Your task to perform on an android device: turn on wifi Image 0: 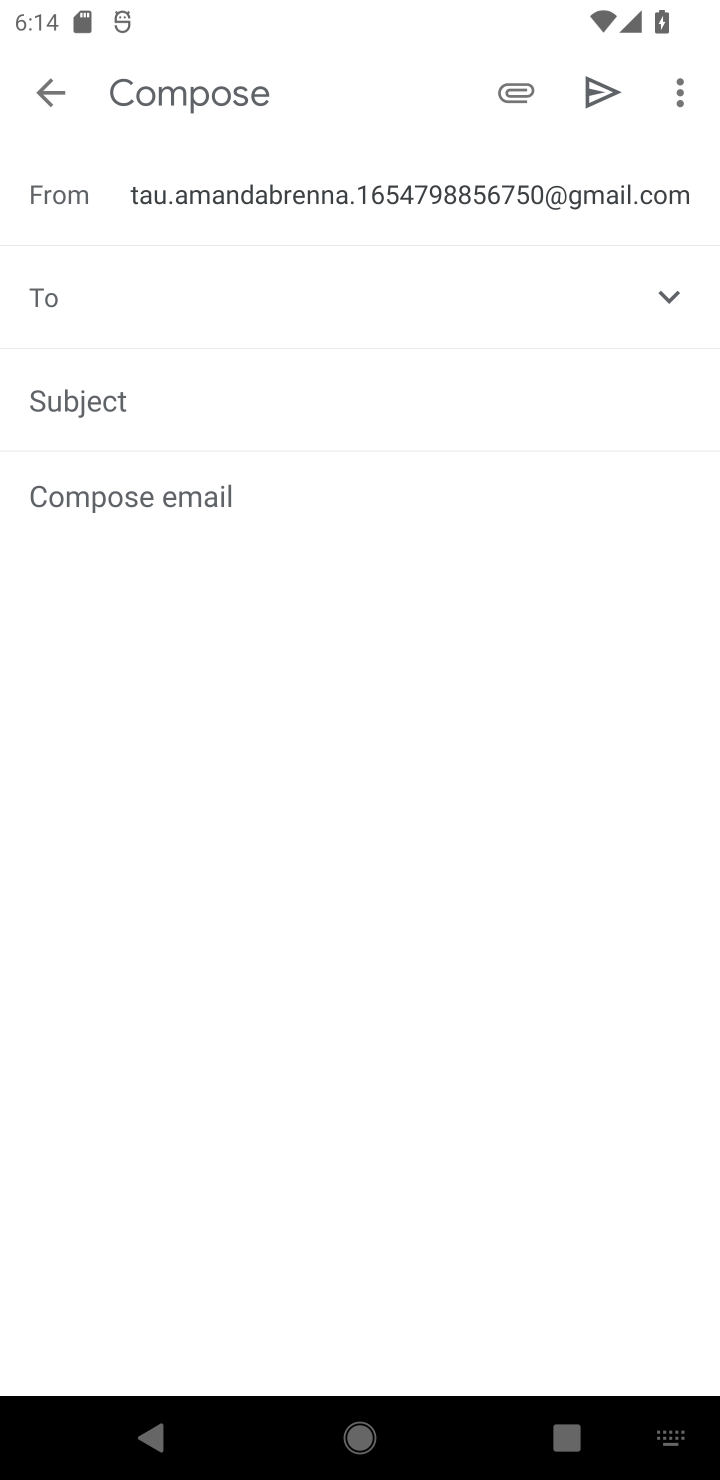
Step 0: press home button
Your task to perform on an android device: turn on wifi Image 1: 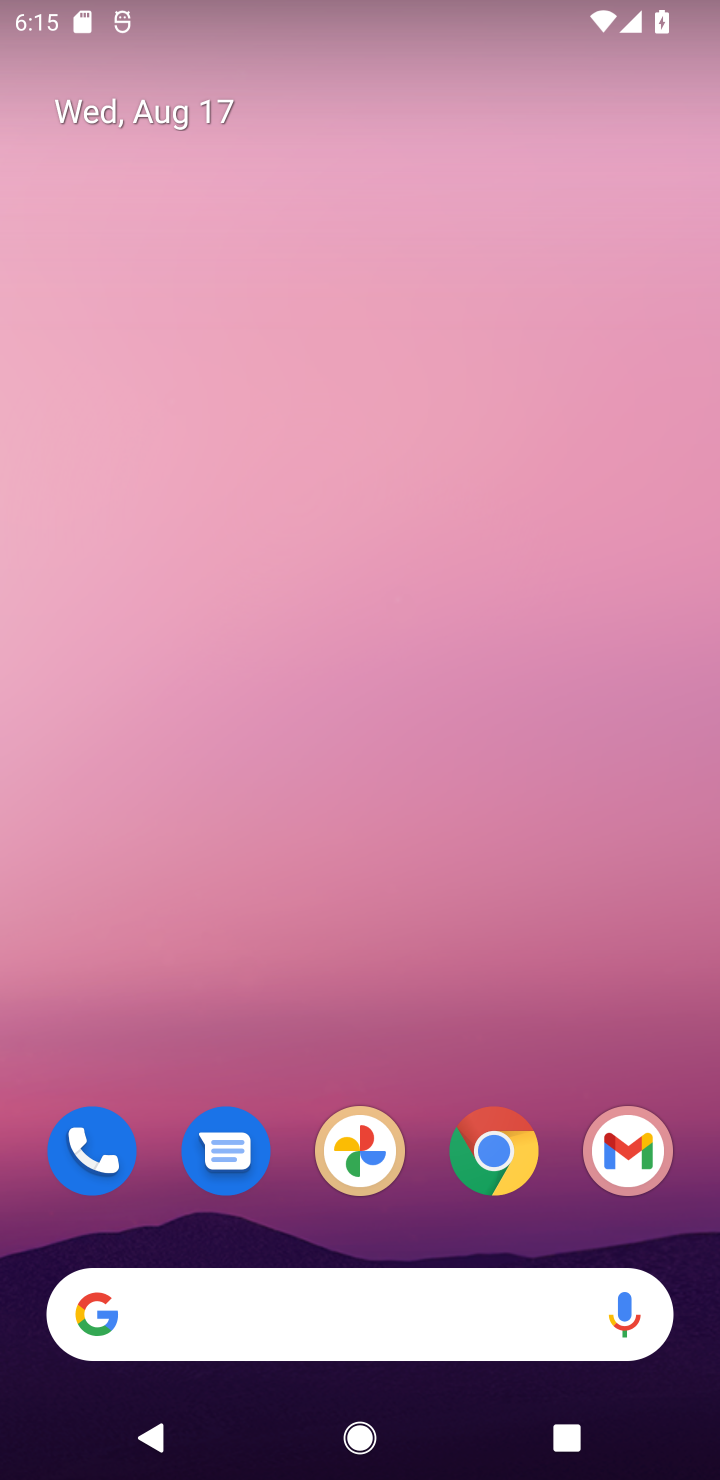
Step 1: drag from (433, 1247) to (488, 282)
Your task to perform on an android device: turn on wifi Image 2: 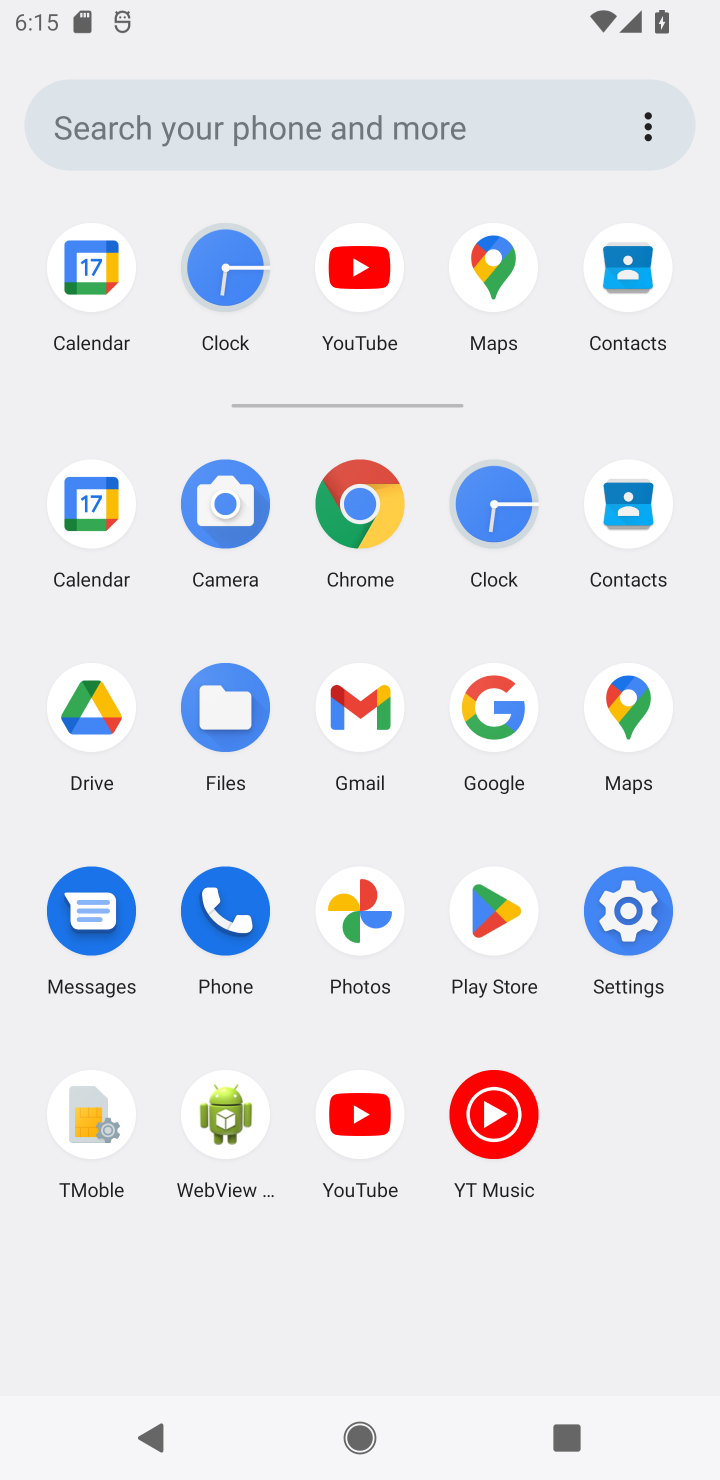
Step 2: click (609, 970)
Your task to perform on an android device: turn on wifi Image 3: 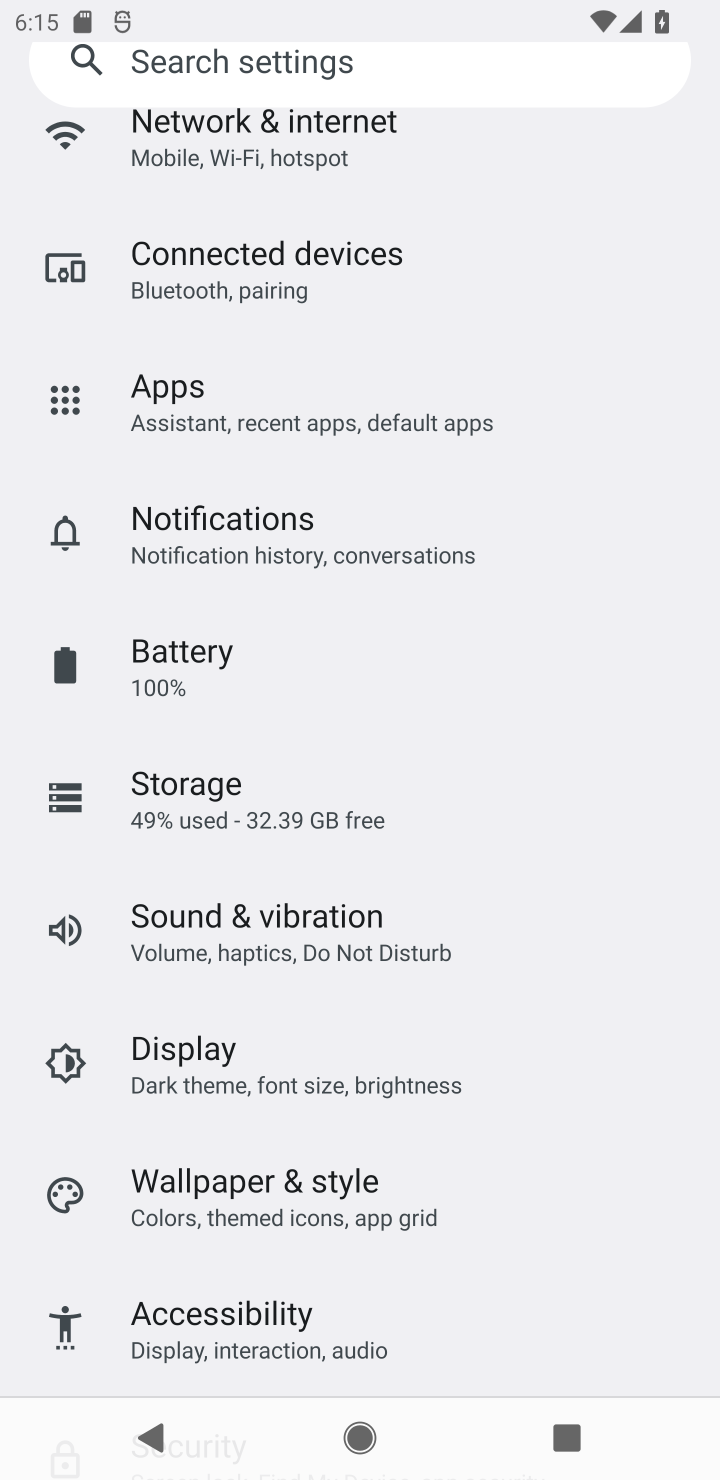
Step 3: click (191, 157)
Your task to perform on an android device: turn on wifi Image 4: 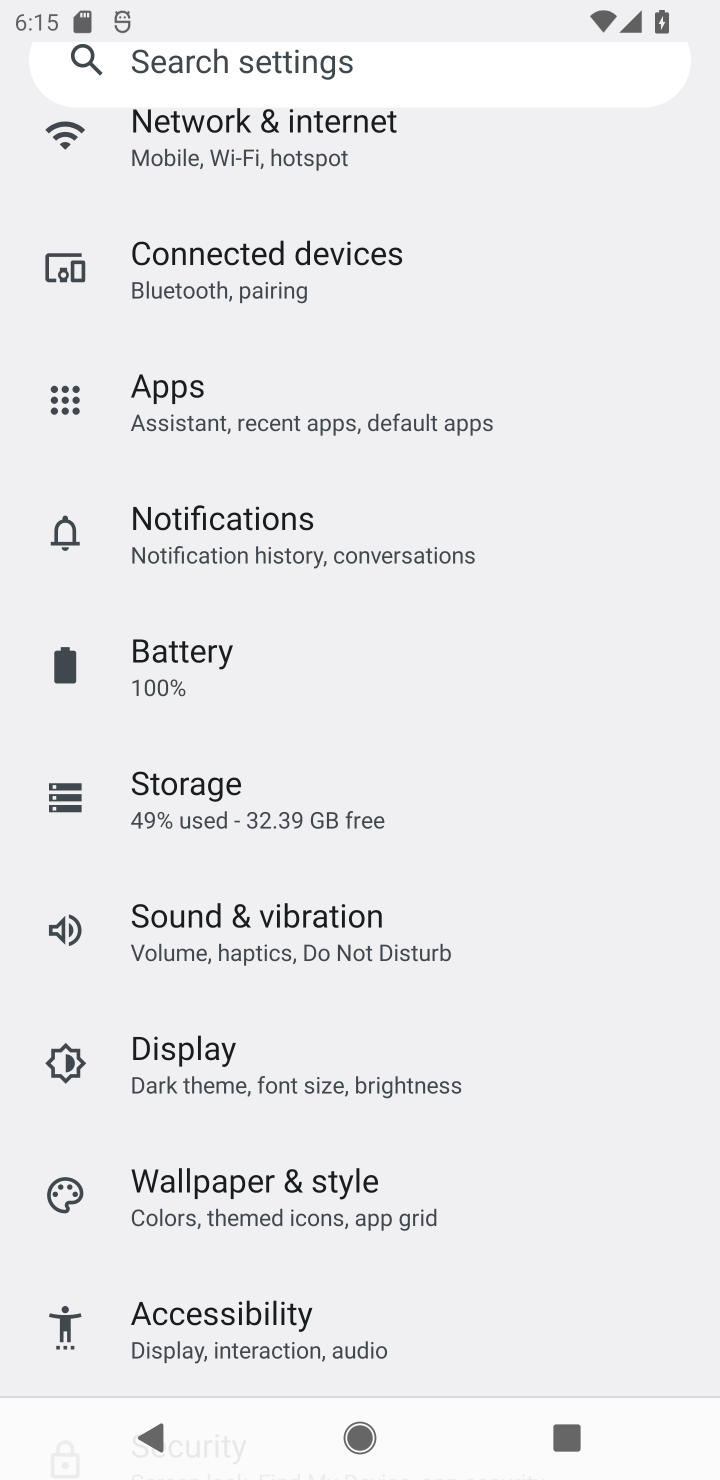
Step 4: task complete